Your task to perform on an android device: Open the calendar app, open the side menu, and click the "Day" option Image 0: 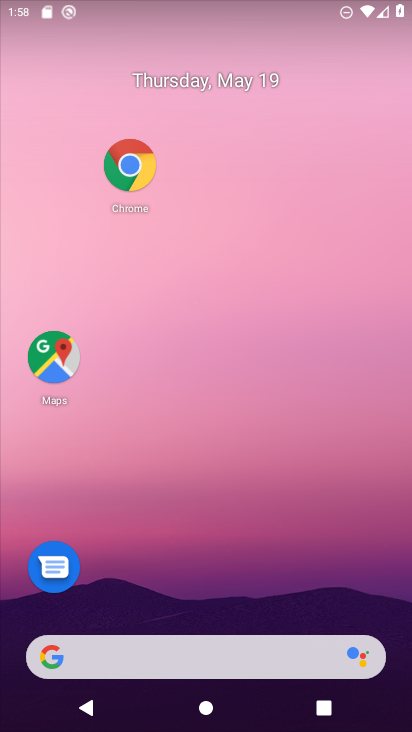
Step 0: drag from (254, 479) to (366, 146)
Your task to perform on an android device: Open the calendar app, open the side menu, and click the "Day" option Image 1: 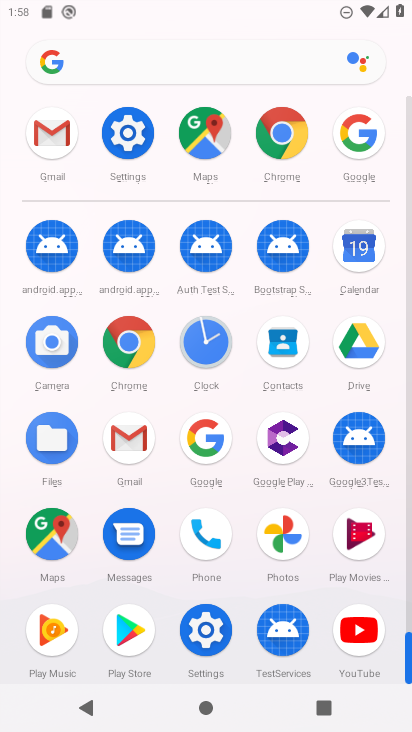
Step 1: click (361, 255)
Your task to perform on an android device: Open the calendar app, open the side menu, and click the "Day" option Image 2: 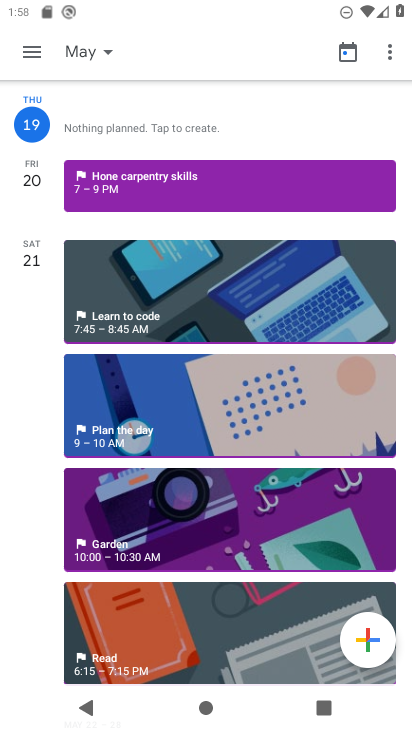
Step 2: click (30, 51)
Your task to perform on an android device: Open the calendar app, open the side menu, and click the "Day" option Image 3: 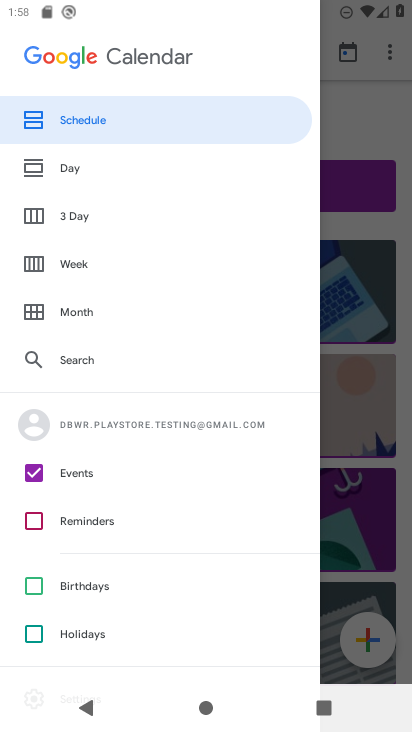
Step 3: click (144, 162)
Your task to perform on an android device: Open the calendar app, open the side menu, and click the "Day" option Image 4: 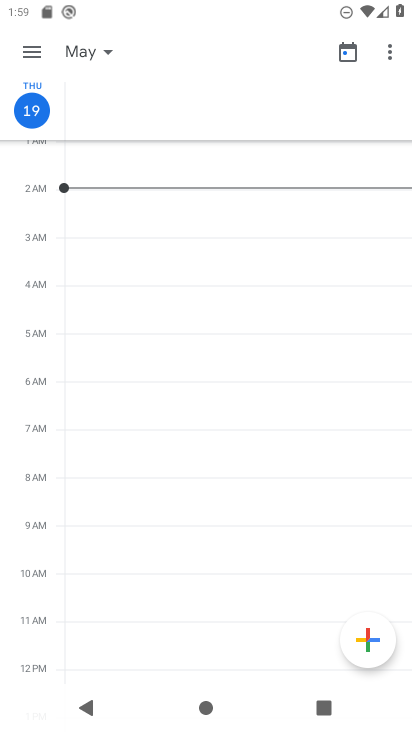
Step 4: task complete